Your task to perform on an android device: open app "Calculator" (install if not already installed) Image 0: 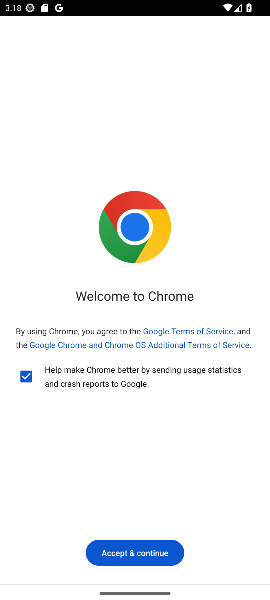
Step 0: press home button
Your task to perform on an android device: open app "Calculator" (install if not already installed) Image 1: 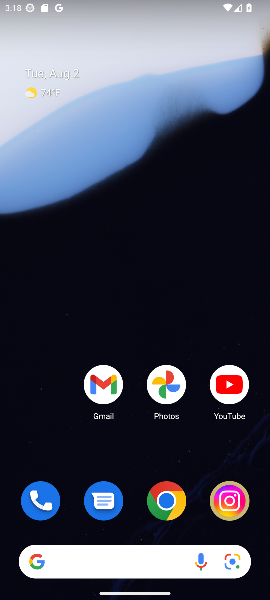
Step 1: drag from (140, 416) to (102, 64)
Your task to perform on an android device: open app "Calculator" (install if not already installed) Image 2: 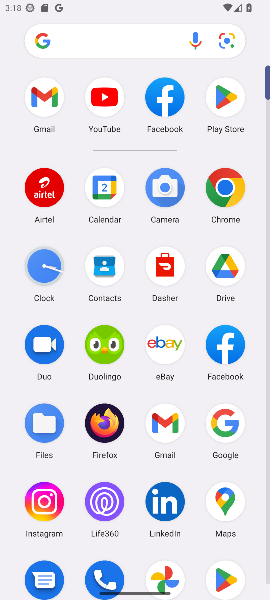
Step 2: click (230, 96)
Your task to perform on an android device: open app "Calculator" (install if not already installed) Image 3: 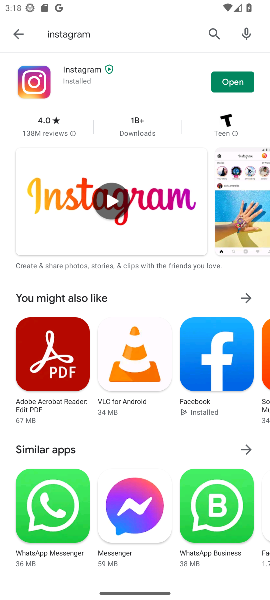
Step 3: click (212, 34)
Your task to perform on an android device: open app "Calculator" (install if not already installed) Image 4: 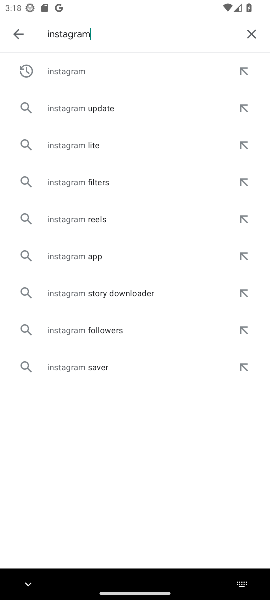
Step 4: click (256, 33)
Your task to perform on an android device: open app "Calculator" (install if not already installed) Image 5: 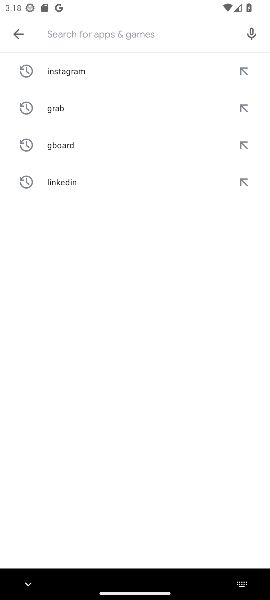
Step 5: type "Calculator"
Your task to perform on an android device: open app "Calculator" (install if not already installed) Image 6: 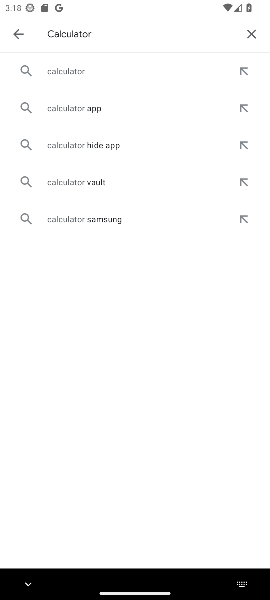
Step 6: click (67, 73)
Your task to perform on an android device: open app "Calculator" (install if not already installed) Image 7: 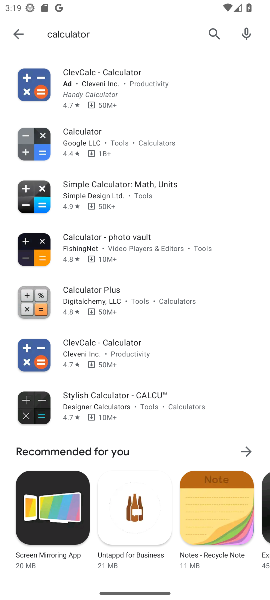
Step 7: click (70, 150)
Your task to perform on an android device: open app "Calculator" (install if not already installed) Image 8: 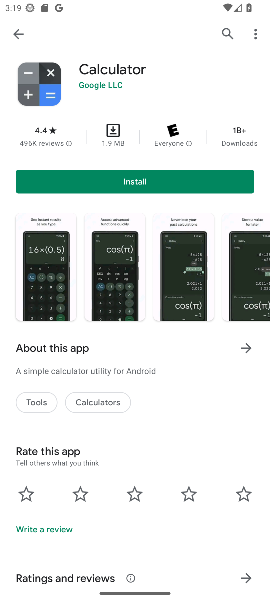
Step 8: click (111, 181)
Your task to perform on an android device: open app "Calculator" (install if not already installed) Image 9: 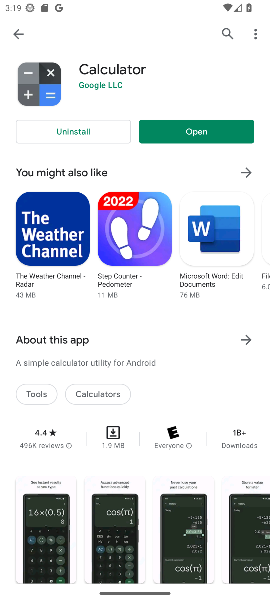
Step 9: click (179, 131)
Your task to perform on an android device: open app "Calculator" (install if not already installed) Image 10: 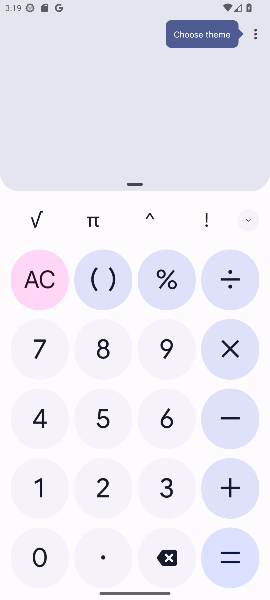
Step 10: task complete